Your task to perform on an android device: Open Google Maps Image 0: 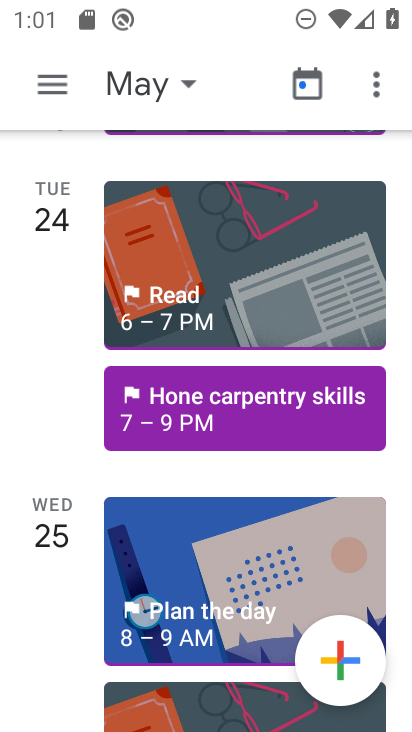
Step 0: press home button
Your task to perform on an android device: Open Google Maps Image 1: 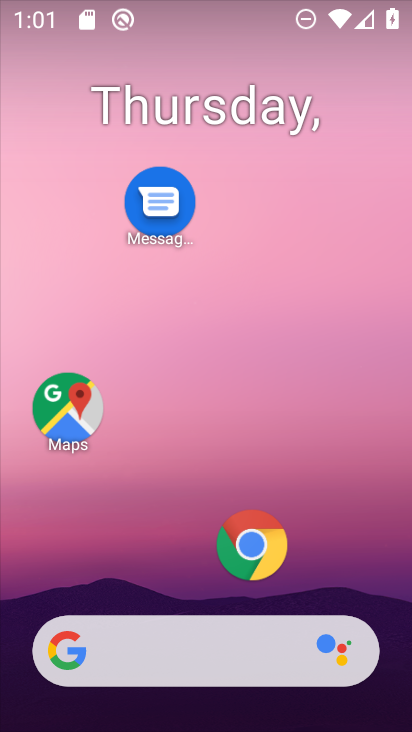
Step 1: click (67, 417)
Your task to perform on an android device: Open Google Maps Image 2: 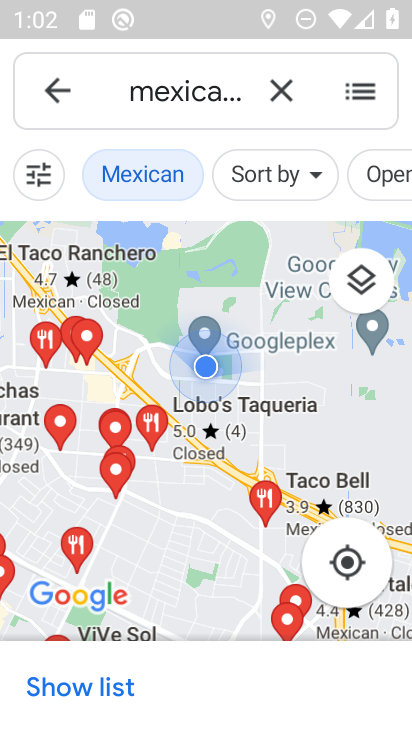
Step 2: task complete